Your task to perform on an android device: change the upload size in google photos Image 0: 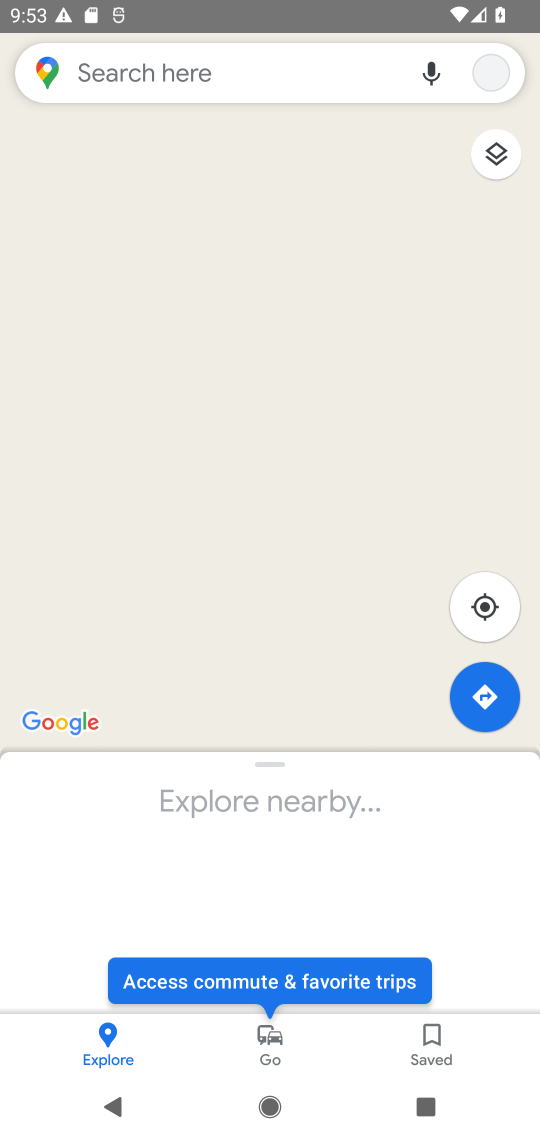
Step 0: press home button
Your task to perform on an android device: change the upload size in google photos Image 1: 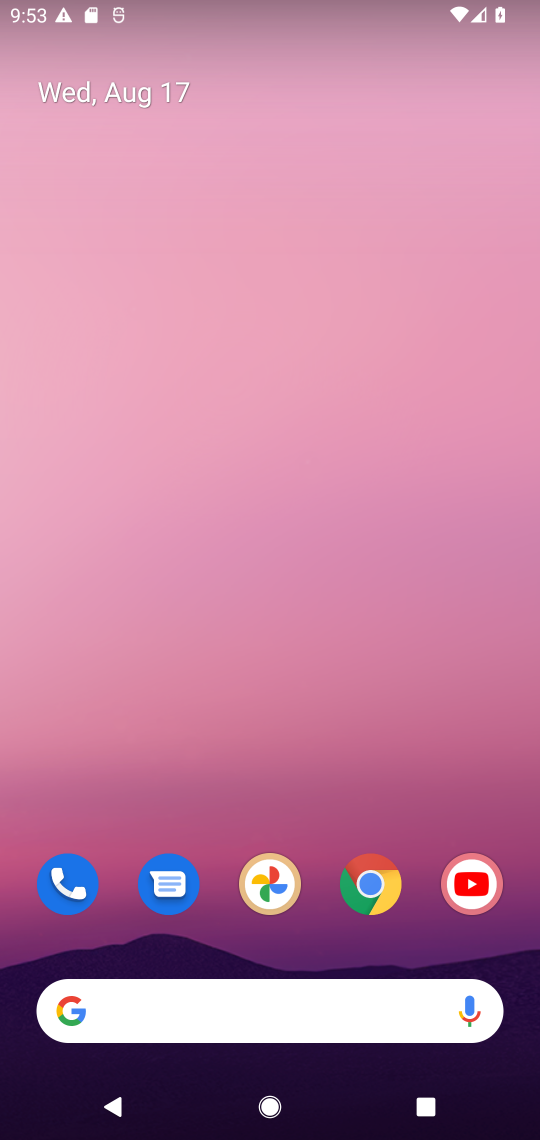
Step 1: click (280, 865)
Your task to perform on an android device: change the upload size in google photos Image 2: 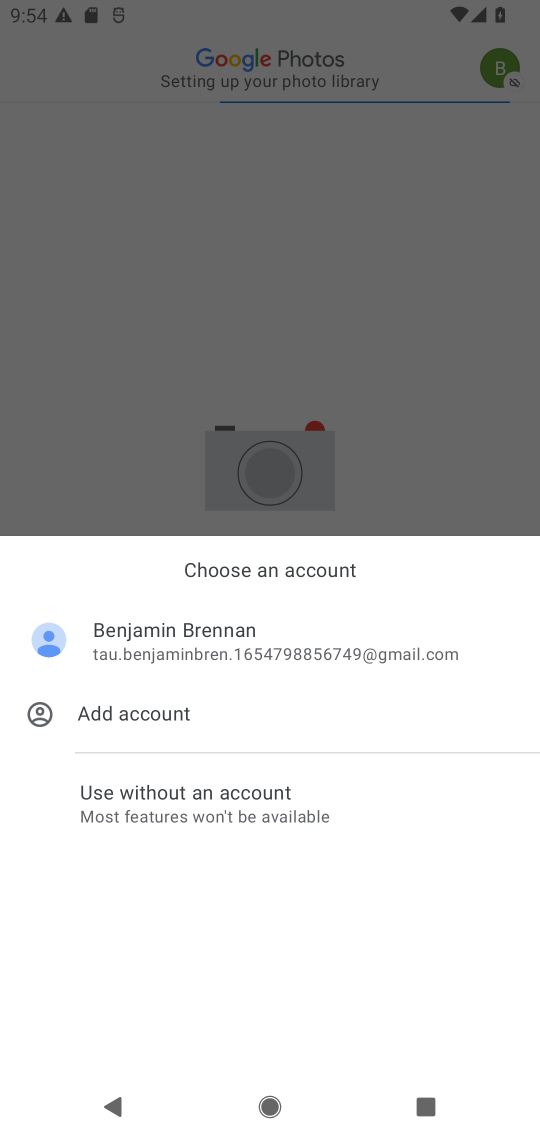
Step 2: click (385, 456)
Your task to perform on an android device: change the upload size in google photos Image 3: 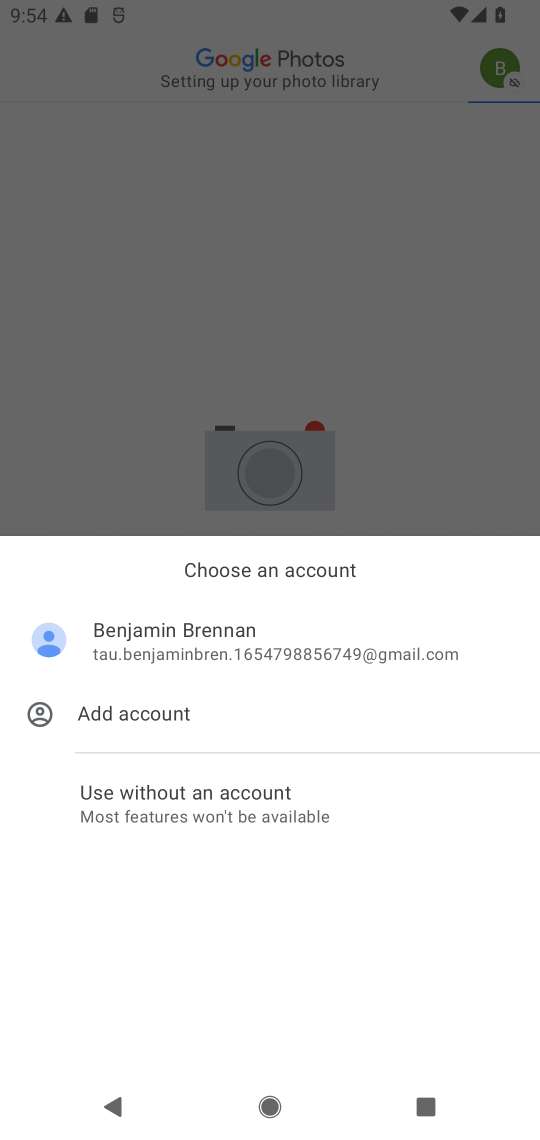
Step 3: task complete